Your task to perform on an android device: Turn off the flashlight Image 0: 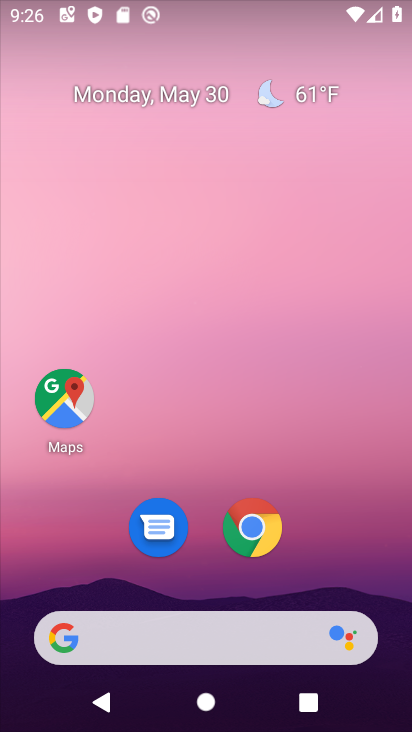
Step 0: drag from (225, 583) to (175, 0)
Your task to perform on an android device: Turn off the flashlight Image 1: 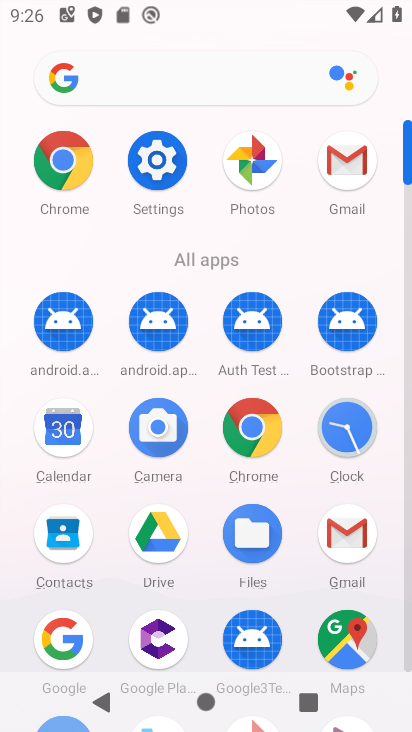
Step 1: click (152, 175)
Your task to perform on an android device: Turn off the flashlight Image 2: 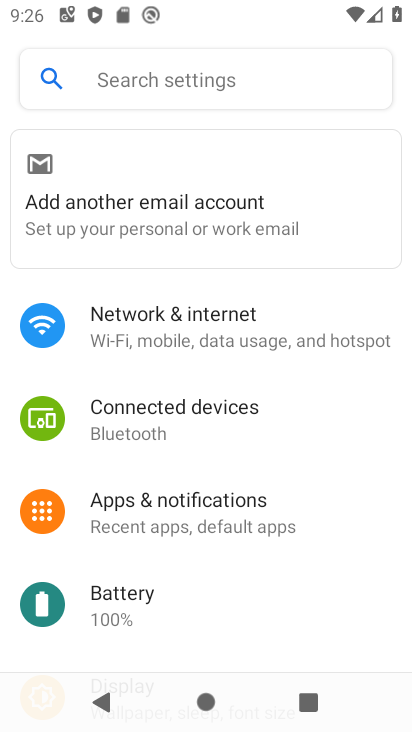
Step 2: task complete